Your task to perform on an android device: Turn off the flashlight Image 0: 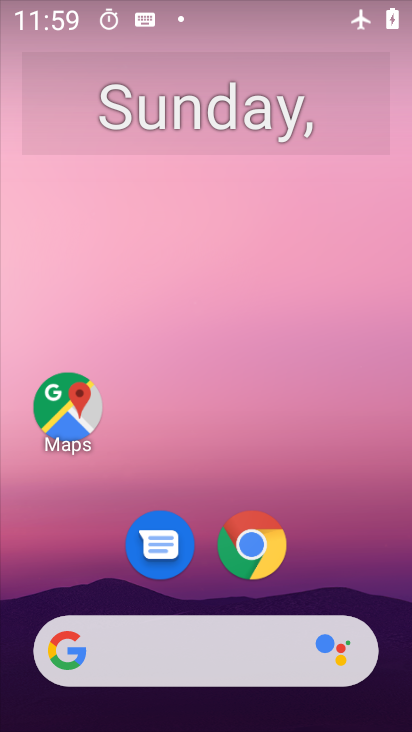
Step 0: drag from (222, 335) to (232, 124)
Your task to perform on an android device: Turn off the flashlight Image 1: 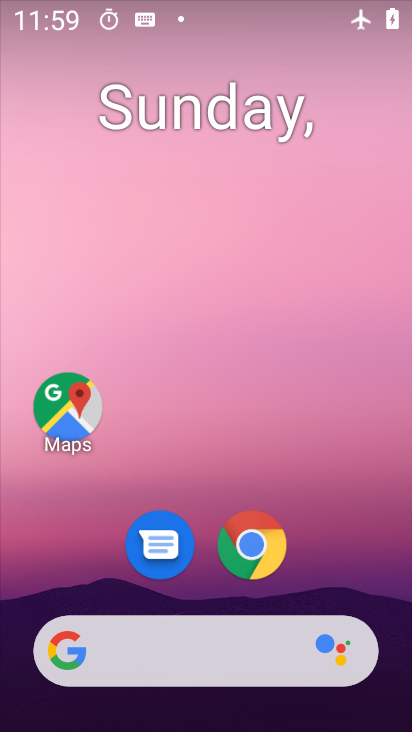
Step 1: drag from (195, 582) to (239, 146)
Your task to perform on an android device: Turn off the flashlight Image 2: 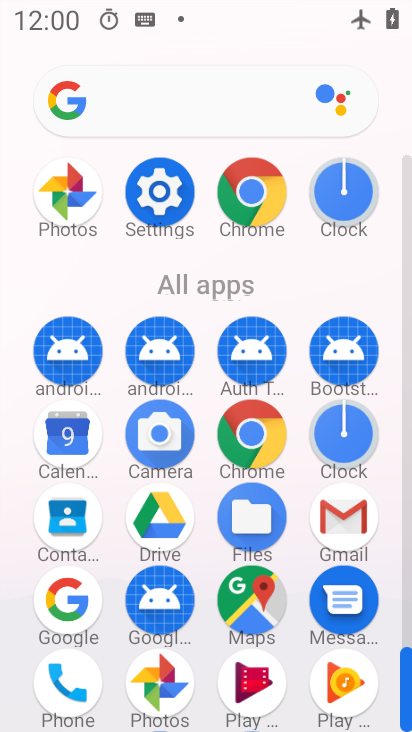
Step 2: drag from (213, 645) to (239, 224)
Your task to perform on an android device: Turn off the flashlight Image 3: 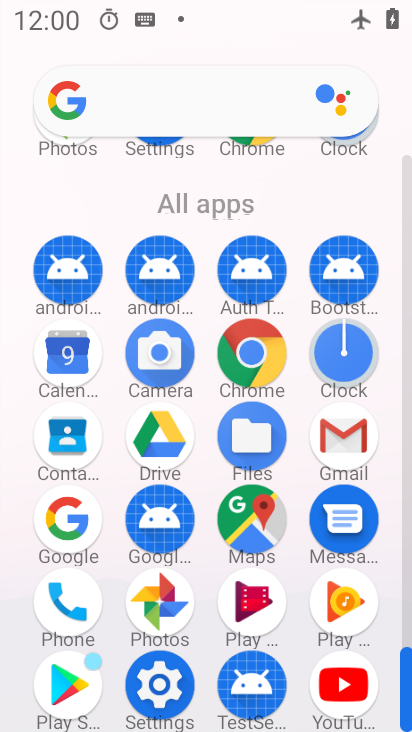
Step 3: click (166, 672)
Your task to perform on an android device: Turn off the flashlight Image 4: 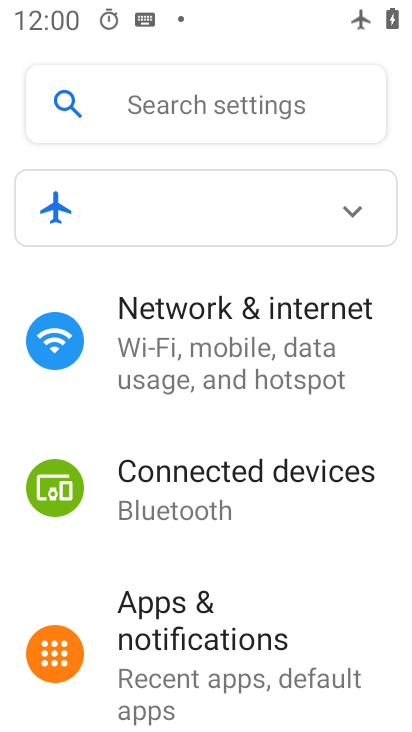
Step 4: click (214, 101)
Your task to perform on an android device: Turn off the flashlight Image 5: 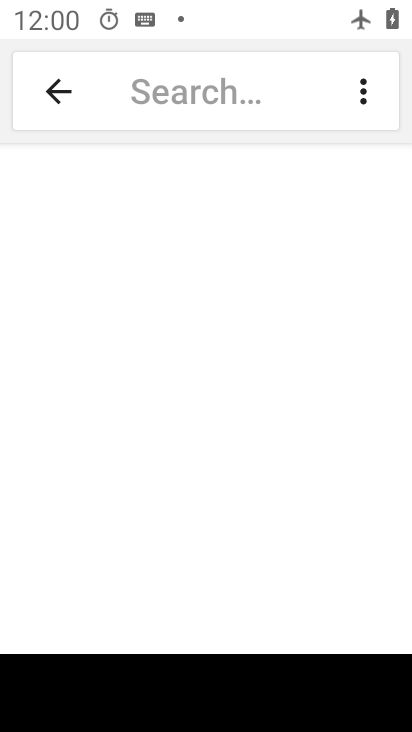
Step 5: type "flashlight"
Your task to perform on an android device: Turn off the flashlight Image 6: 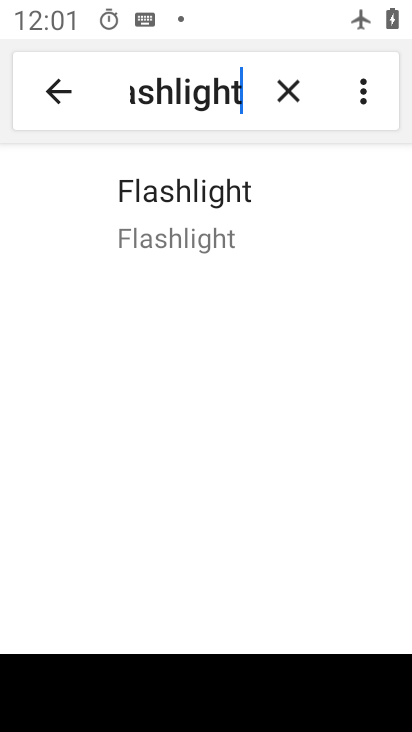
Step 6: drag from (227, 438) to (204, 95)
Your task to perform on an android device: Turn off the flashlight Image 7: 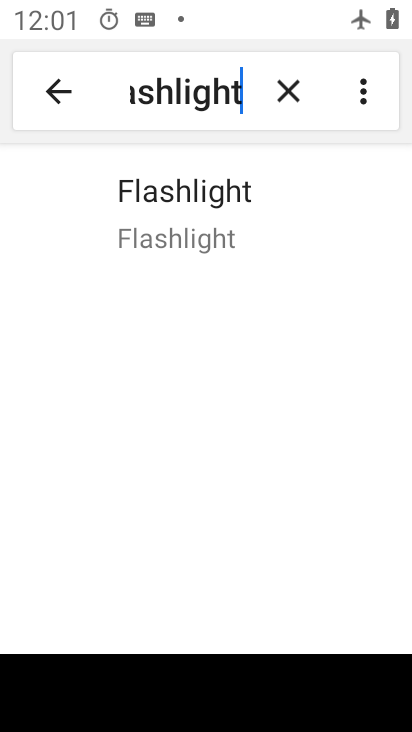
Step 7: click (173, 229)
Your task to perform on an android device: Turn off the flashlight Image 8: 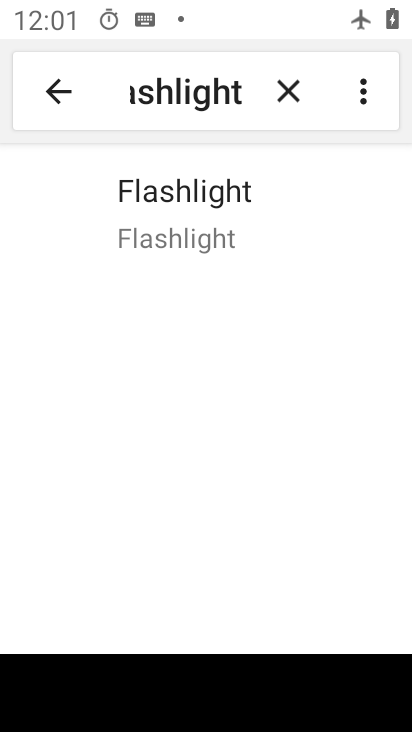
Step 8: task complete